Your task to perform on an android device: turn on bluetooth scan Image 0: 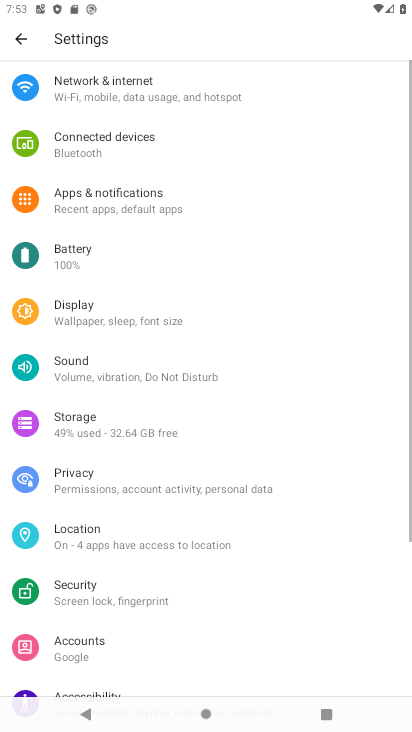
Step 0: click (131, 92)
Your task to perform on an android device: turn on bluetooth scan Image 1: 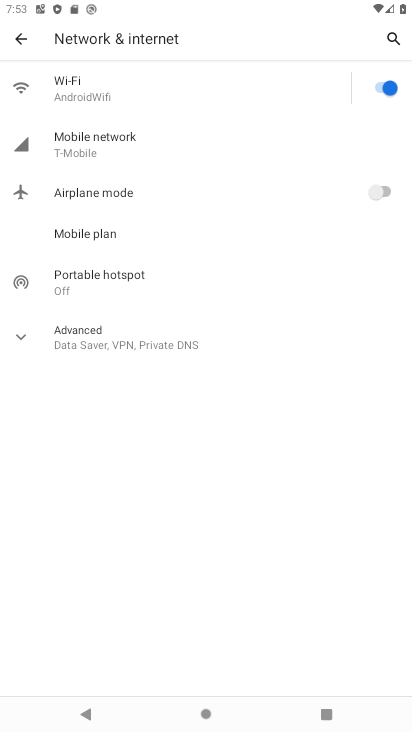
Step 1: click (85, 146)
Your task to perform on an android device: turn on bluetooth scan Image 2: 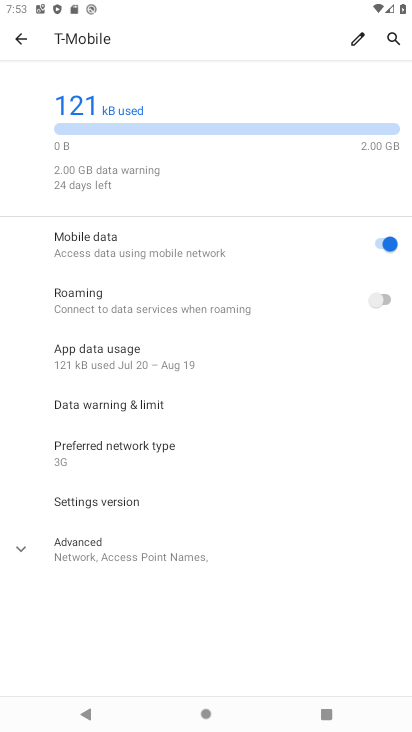
Step 2: click (21, 35)
Your task to perform on an android device: turn on bluetooth scan Image 3: 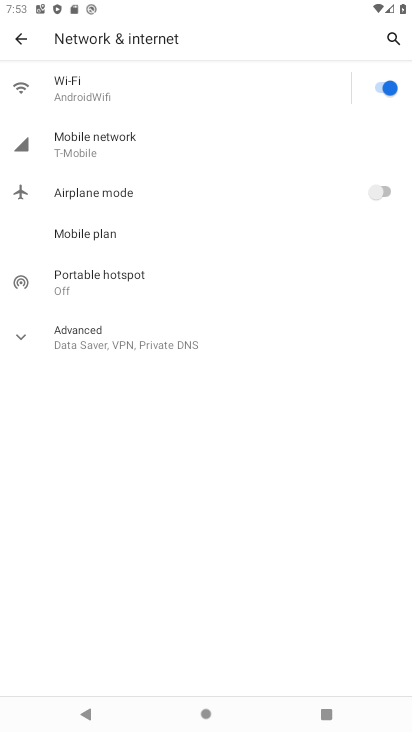
Step 3: click (13, 36)
Your task to perform on an android device: turn on bluetooth scan Image 4: 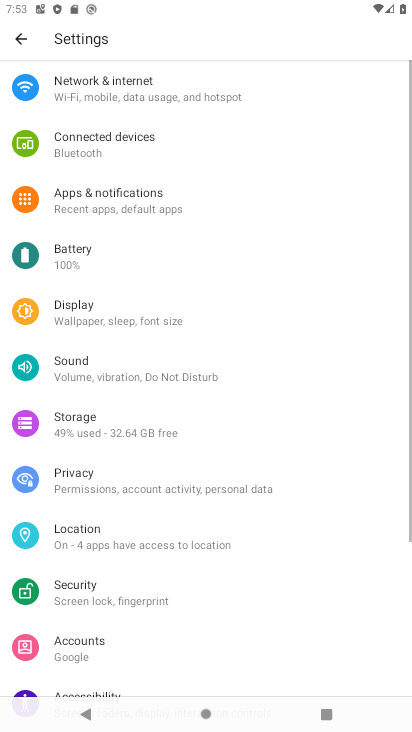
Step 4: click (110, 155)
Your task to perform on an android device: turn on bluetooth scan Image 5: 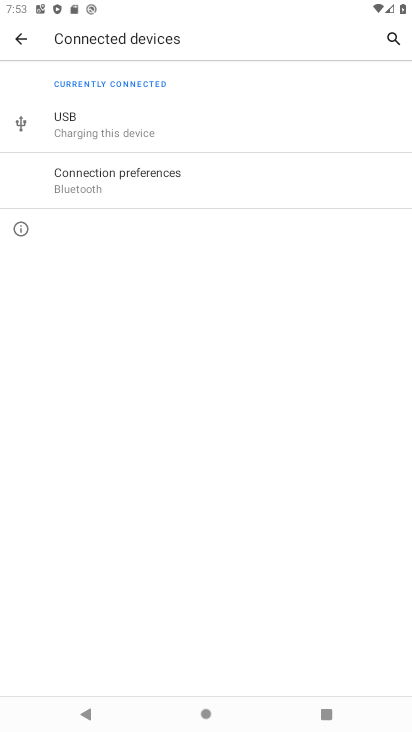
Step 5: click (100, 190)
Your task to perform on an android device: turn on bluetooth scan Image 6: 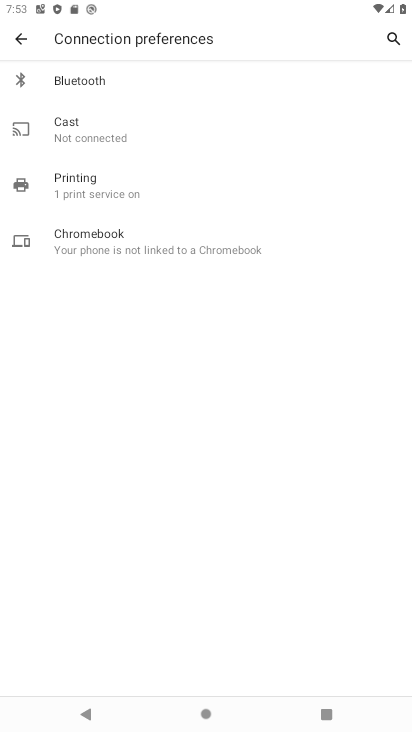
Step 6: click (152, 86)
Your task to perform on an android device: turn on bluetooth scan Image 7: 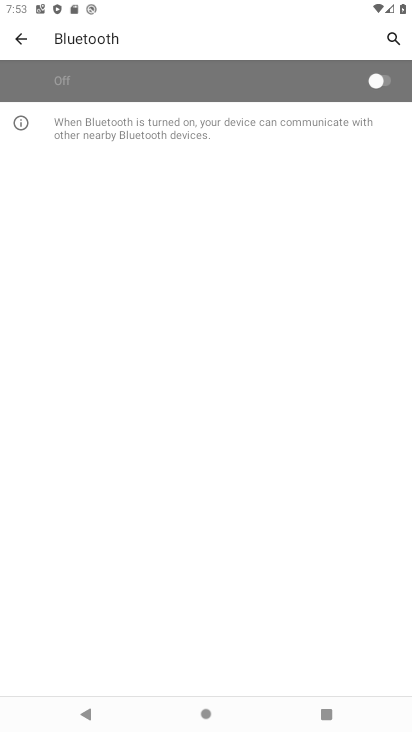
Step 7: task complete